Your task to perform on an android device: What's the weather going to be this weekend? Image 0: 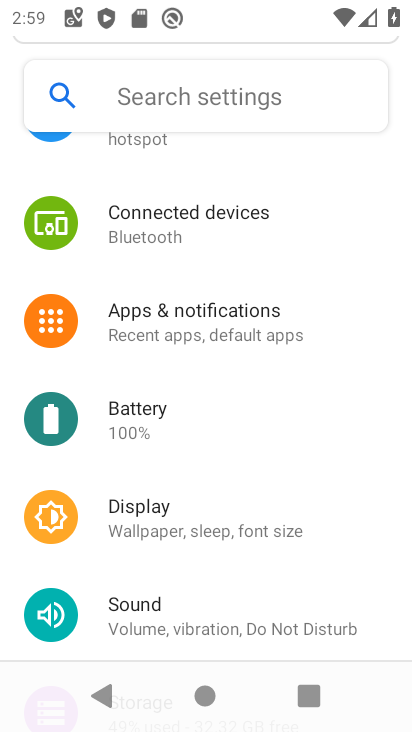
Step 0: press home button
Your task to perform on an android device: What's the weather going to be this weekend? Image 1: 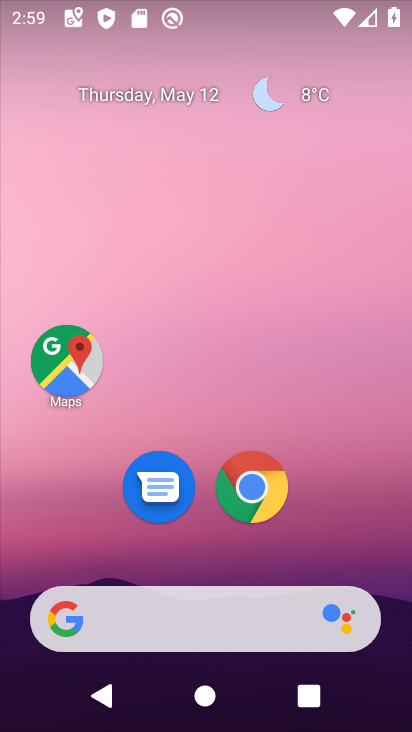
Step 1: click (303, 92)
Your task to perform on an android device: What's the weather going to be this weekend? Image 2: 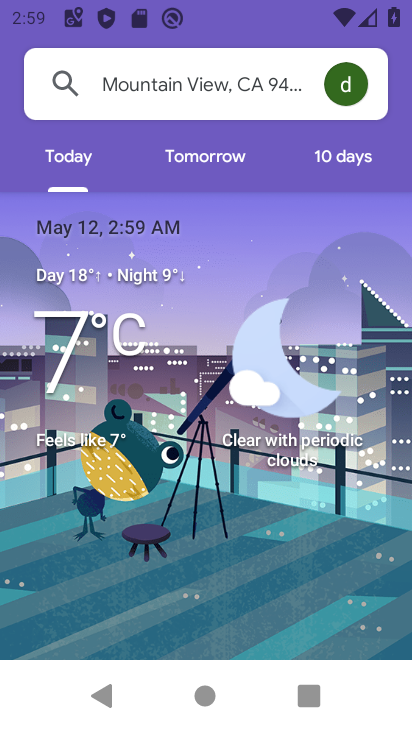
Step 2: click (358, 152)
Your task to perform on an android device: What's the weather going to be this weekend? Image 3: 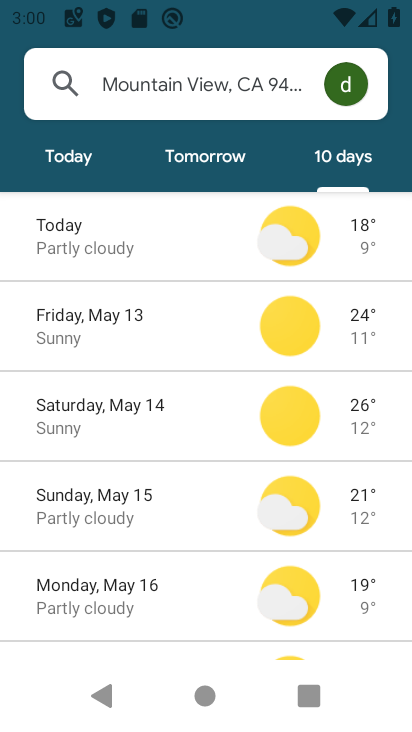
Step 3: task complete